Your task to perform on an android device: set the stopwatch Image 0: 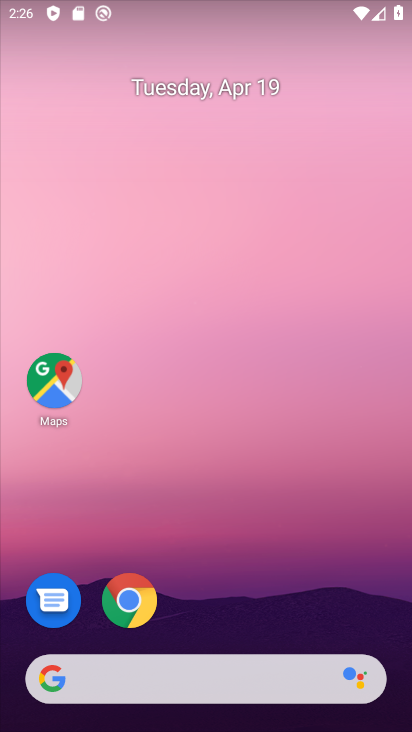
Step 0: drag from (366, 618) to (348, 129)
Your task to perform on an android device: set the stopwatch Image 1: 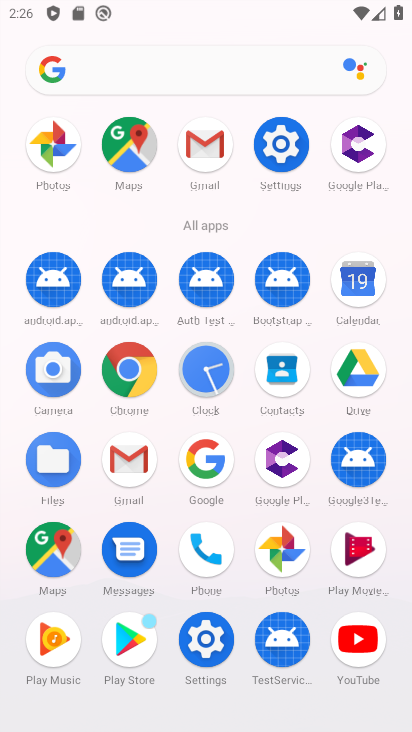
Step 1: click (203, 366)
Your task to perform on an android device: set the stopwatch Image 2: 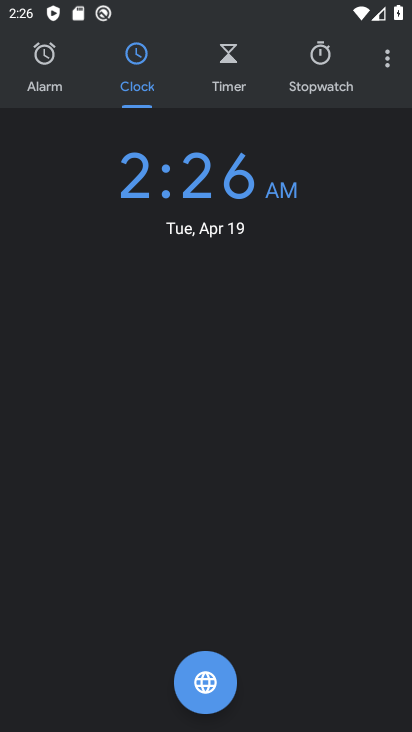
Step 2: click (322, 68)
Your task to perform on an android device: set the stopwatch Image 3: 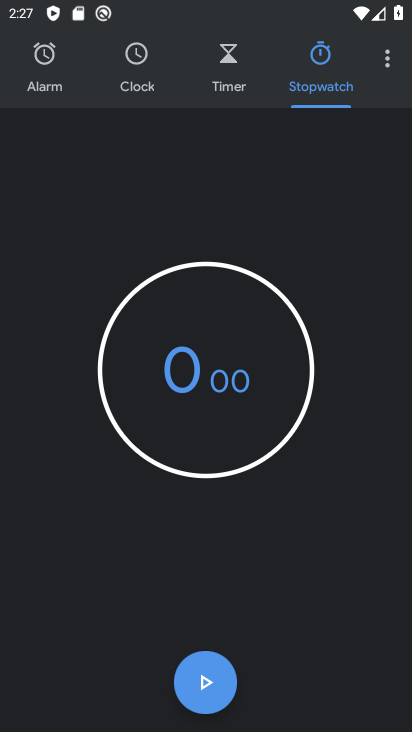
Step 3: task complete